Your task to perform on an android device: Searchfor good French restaurants Image 0: 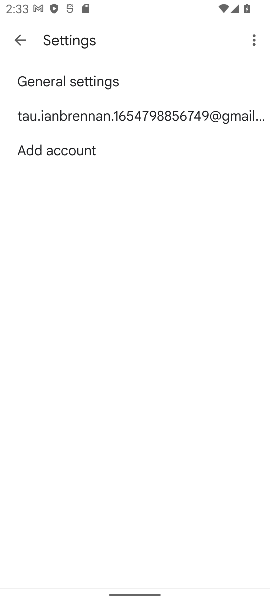
Step 0: press back button
Your task to perform on an android device: Searchfor good French restaurants Image 1: 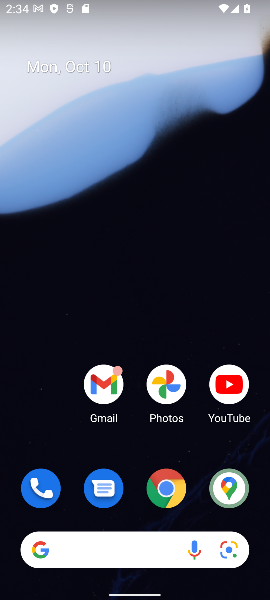
Step 1: click (80, 551)
Your task to perform on an android device: Searchfor good French restaurants Image 2: 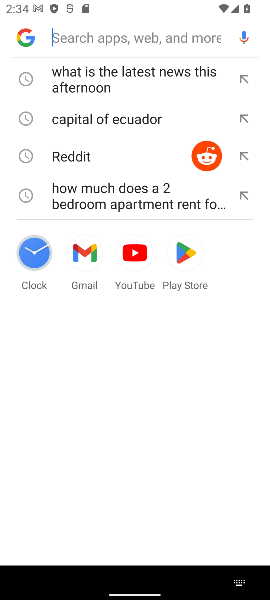
Step 2: click (98, 40)
Your task to perform on an android device: Searchfor good French restaurants Image 3: 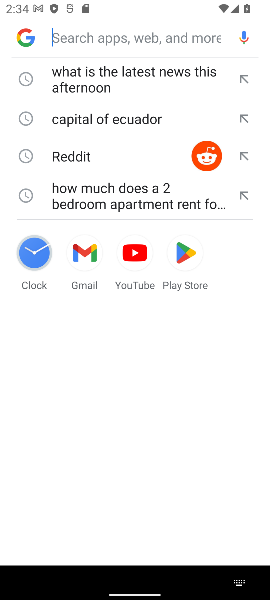
Step 3: type "good French restaurants"
Your task to perform on an android device: Searchfor good French restaurants Image 4: 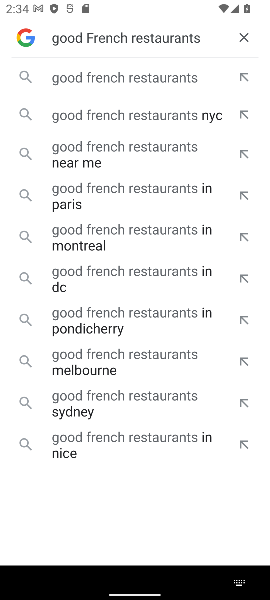
Step 4: click (162, 70)
Your task to perform on an android device: Searchfor good French restaurants Image 5: 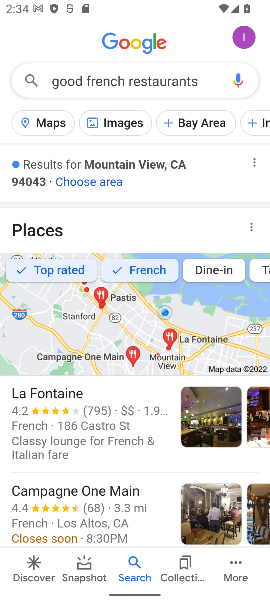
Step 5: task complete